Your task to perform on an android device: see tabs open on other devices in the chrome app Image 0: 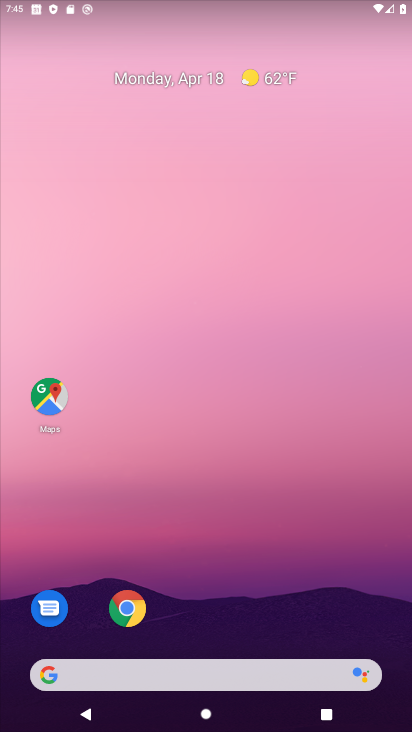
Step 0: click (127, 605)
Your task to perform on an android device: see tabs open on other devices in the chrome app Image 1: 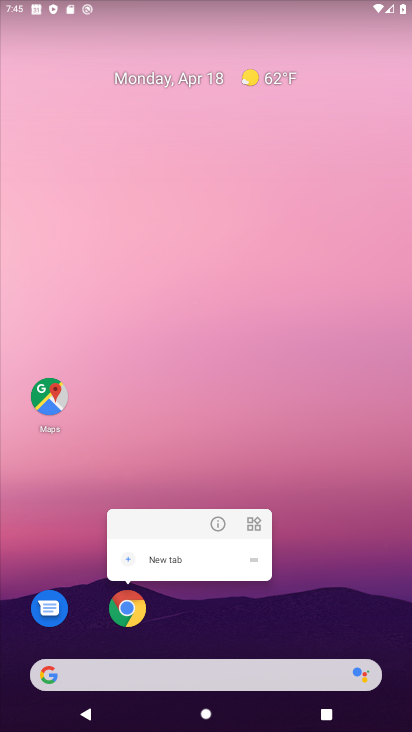
Step 1: click (127, 605)
Your task to perform on an android device: see tabs open on other devices in the chrome app Image 2: 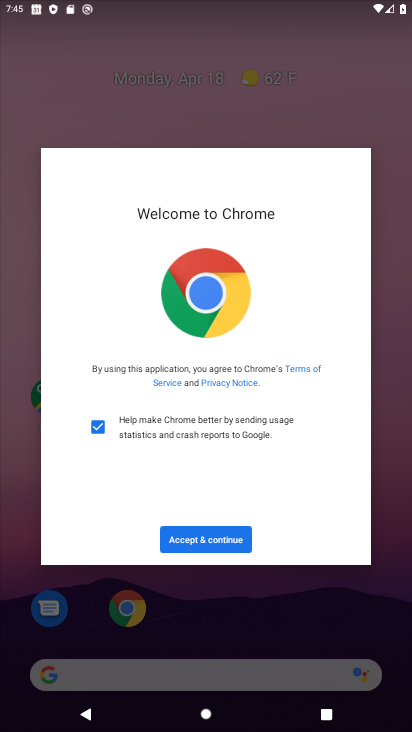
Step 2: click (213, 538)
Your task to perform on an android device: see tabs open on other devices in the chrome app Image 3: 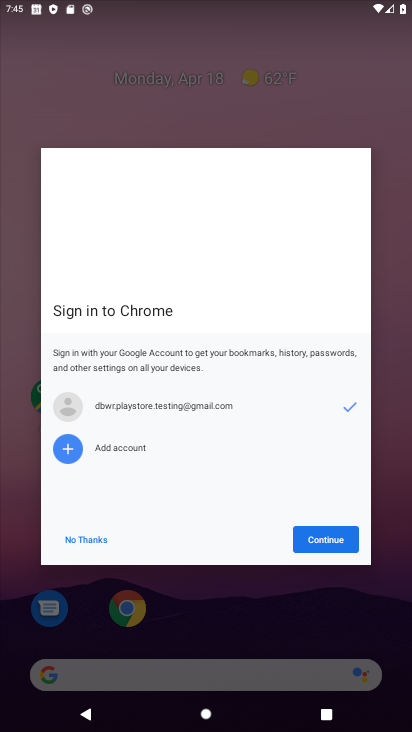
Step 3: click (327, 533)
Your task to perform on an android device: see tabs open on other devices in the chrome app Image 4: 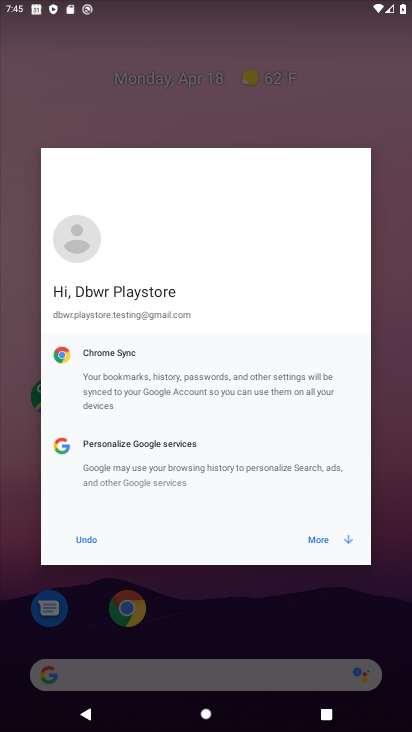
Step 4: click (327, 533)
Your task to perform on an android device: see tabs open on other devices in the chrome app Image 5: 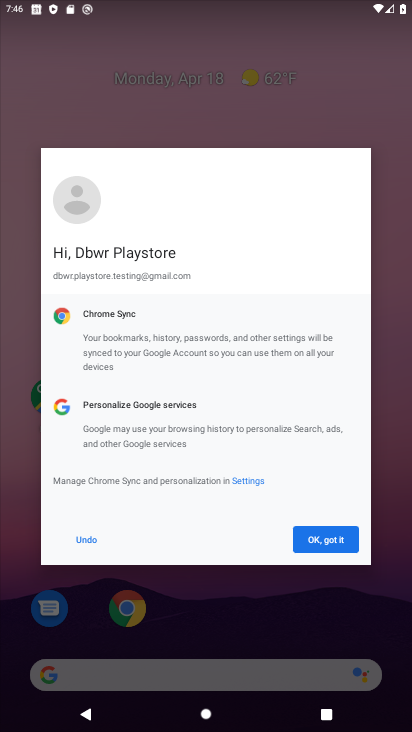
Step 5: click (327, 533)
Your task to perform on an android device: see tabs open on other devices in the chrome app Image 6: 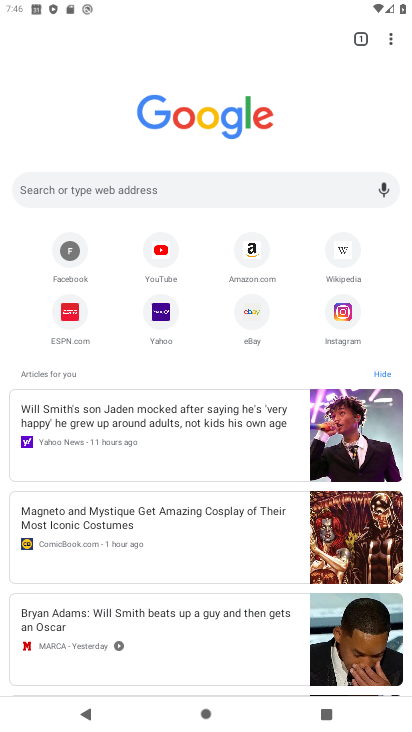
Step 6: click (397, 39)
Your task to perform on an android device: see tabs open on other devices in the chrome app Image 7: 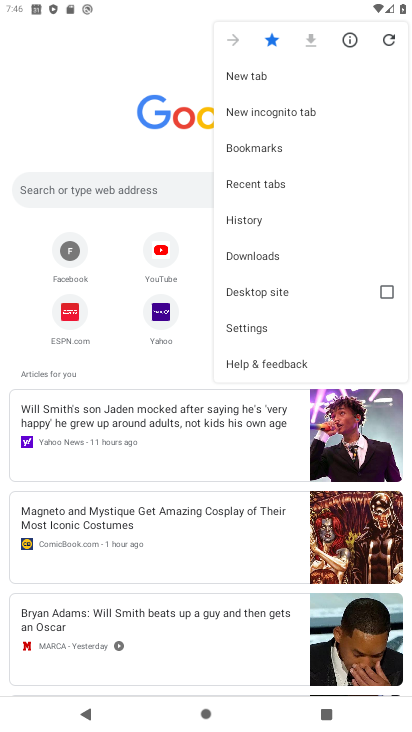
Step 7: click (259, 183)
Your task to perform on an android device: see tabs open on other devices in the chrome app Image 8: 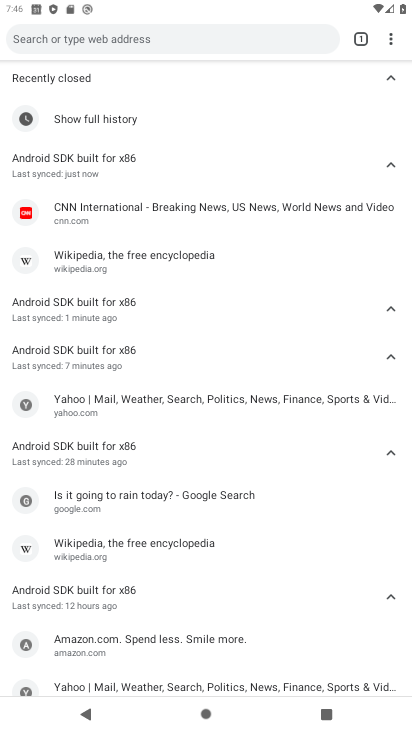
Step 8: task complete